Your task to perform on an android device: Turn off the flashlight Image 0: 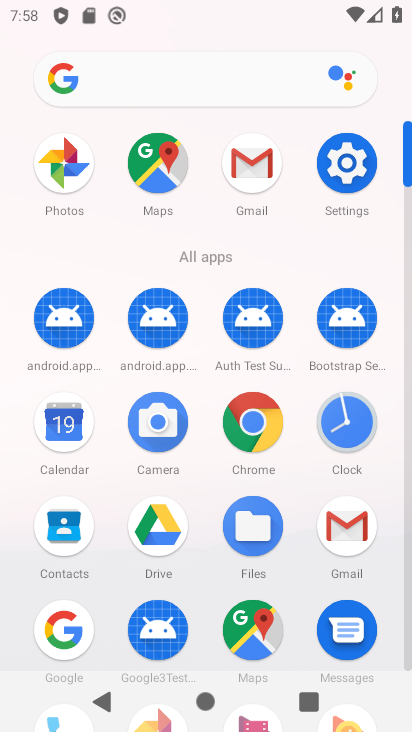
Step 0: click (328, 160)
Your task to perform on an android device: Turn off the flashlight Image 1: 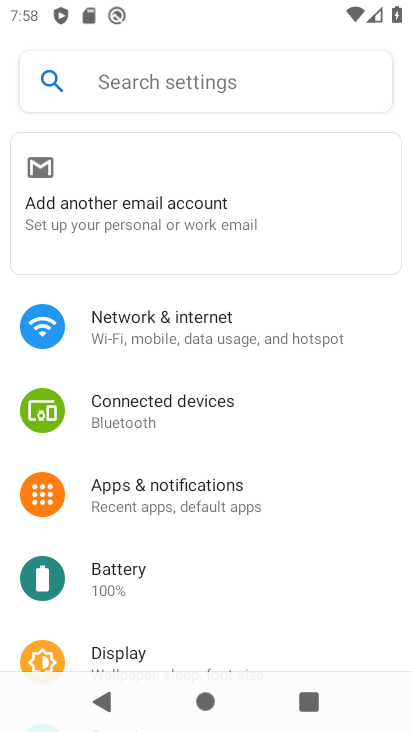
Step 1: task complete